Your task to perform on an android device: turn notification dots off Image 0: 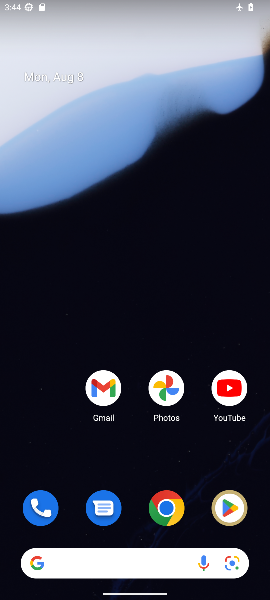
Step 0: drag from (138, 468) to (117, 123)
Your task to perform on an android device: turn notification dots off Image 1: 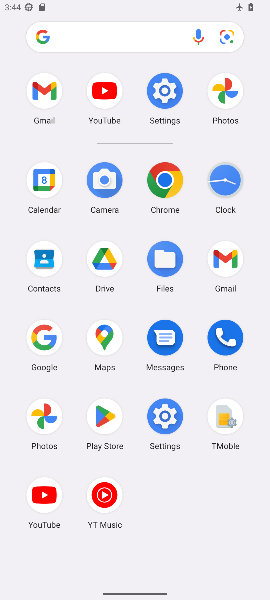
Step 1: click (164, 91)
Your task to perform on an android device: turn notification dots off Image 2: 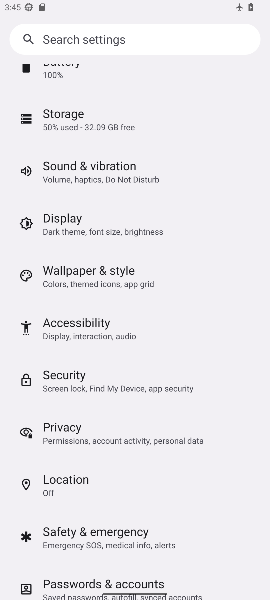
Step 2: drag from (176, 141) to (160, 392)
Your task to perform on an android device: turn notification dots off Image 3: 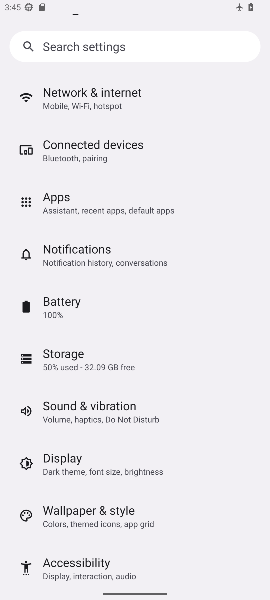
Step 3: click (78, 250)
Your task to perform on an android device: turn notification dots off Image 4: 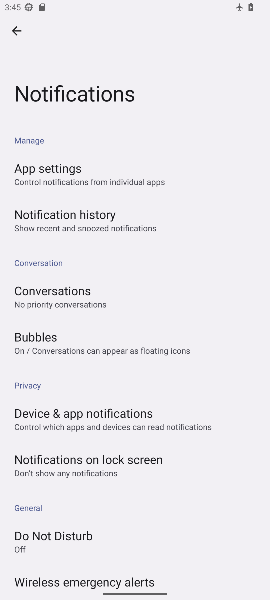
Step 4: task complete